Your task to perform on an android device: Search for amazon basics triple a on target, select the first entry, and add it to the cart. Image 0: 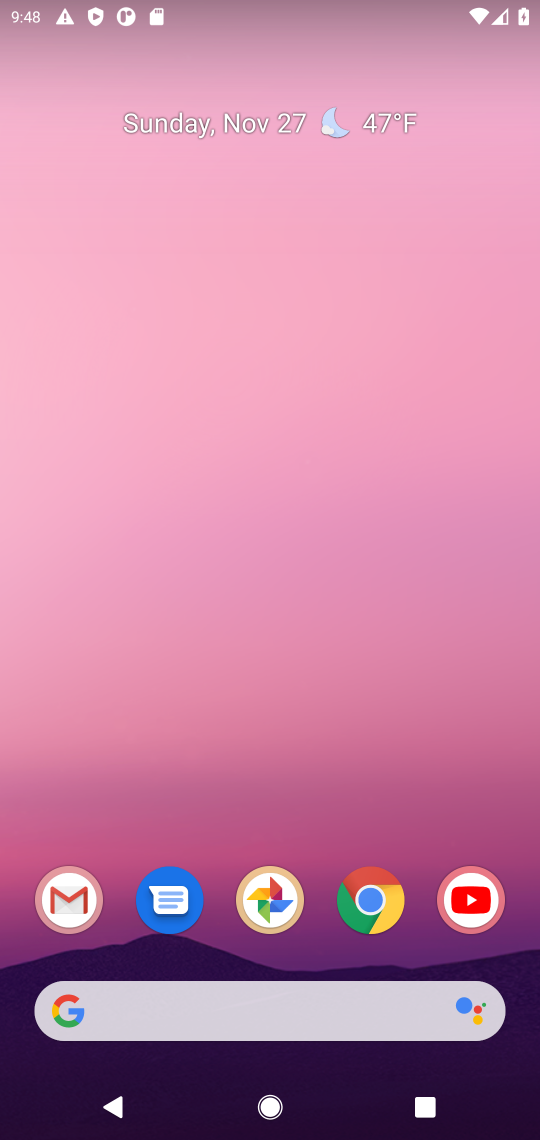
Step 0: click (370, 910)
Your task to perform on an android device: Search for amazon basics triple a on target, select the first entry, and add it to the cart. Image 1: 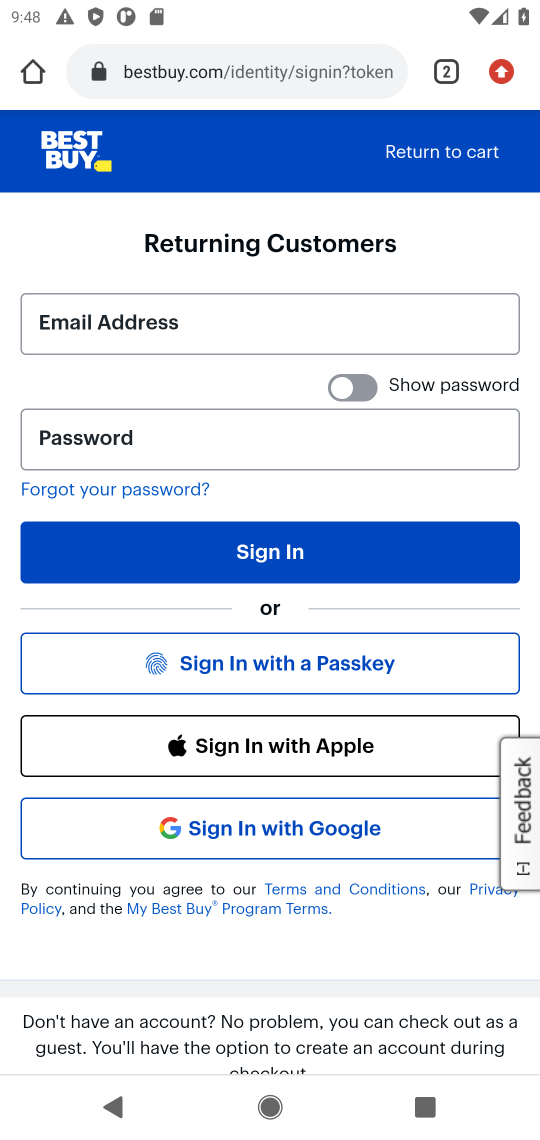
Step 1: click (175, 64)
Your task to perform on an android device: Search for amazon basics triple a on target, select the first entry, and add it to the cart. Image 2: 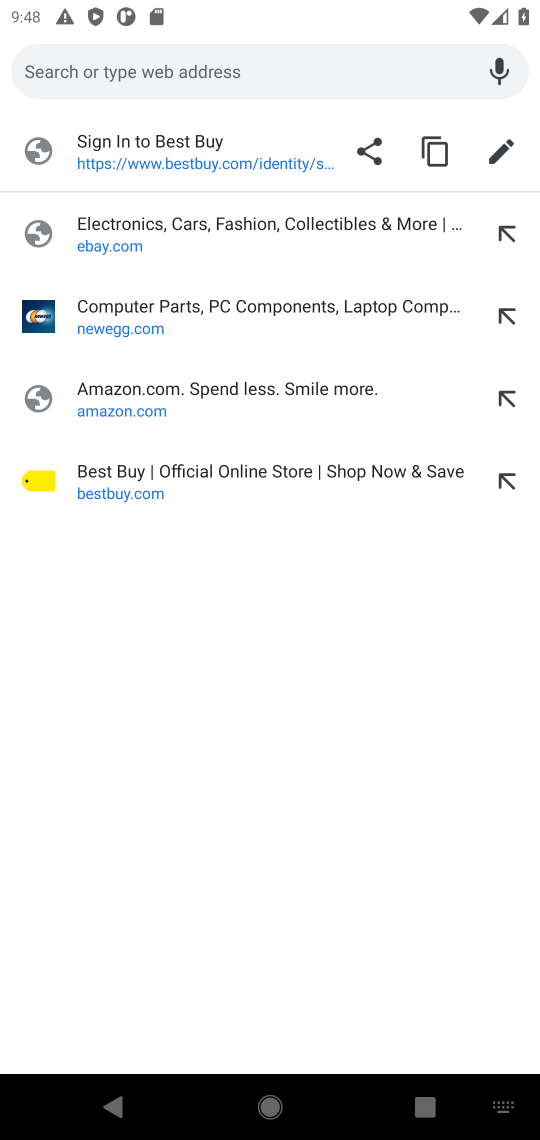
Step 2: type "target.com"
Your task to perform on an android device: Search for amazon basics triple a on target, select the first entry, and add it to the cart. Image 3: 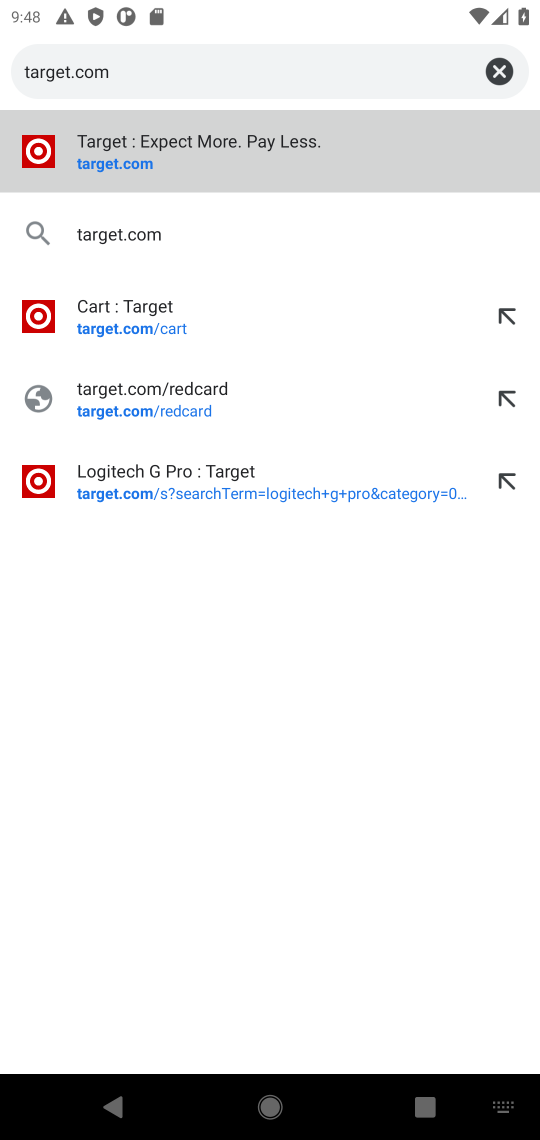
Step 3: click (117, 160)
Your task to perform on an android device: Search for amazon basics triple a on target, select the first entry, and add it to the cart. Image 4: 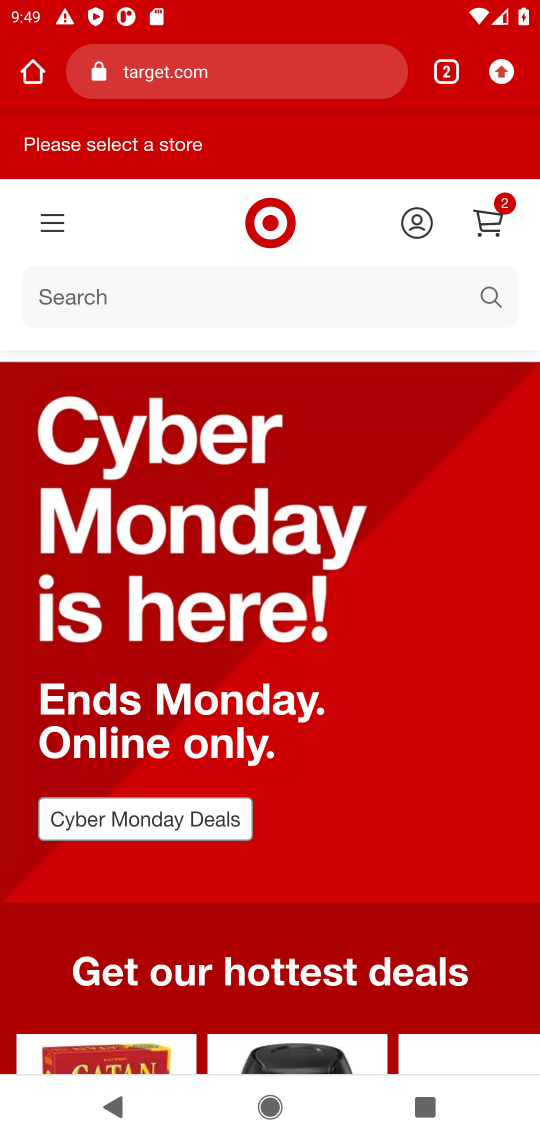
Step 4: click (493, 295)
Your task to perform on an android device: Search for amazon basics triple a on target, select the first entry, and add it to the cart. Image 5: 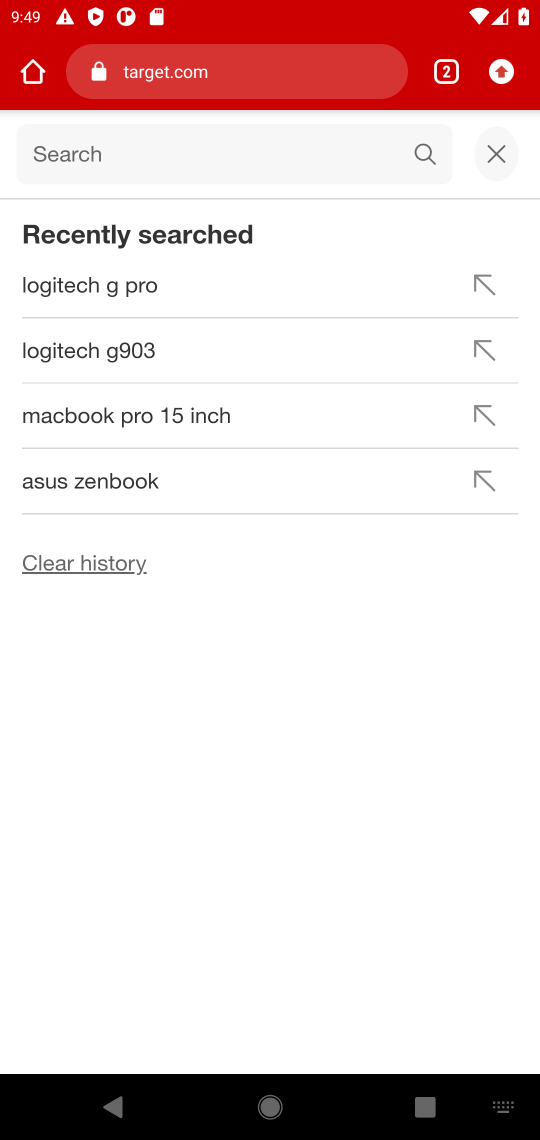
Step 5: type "amazon basics triple a"
Your task to perform on an android device: Search for amazon basics triple a on target, select the first entry, and add it to the cart. Image 6: 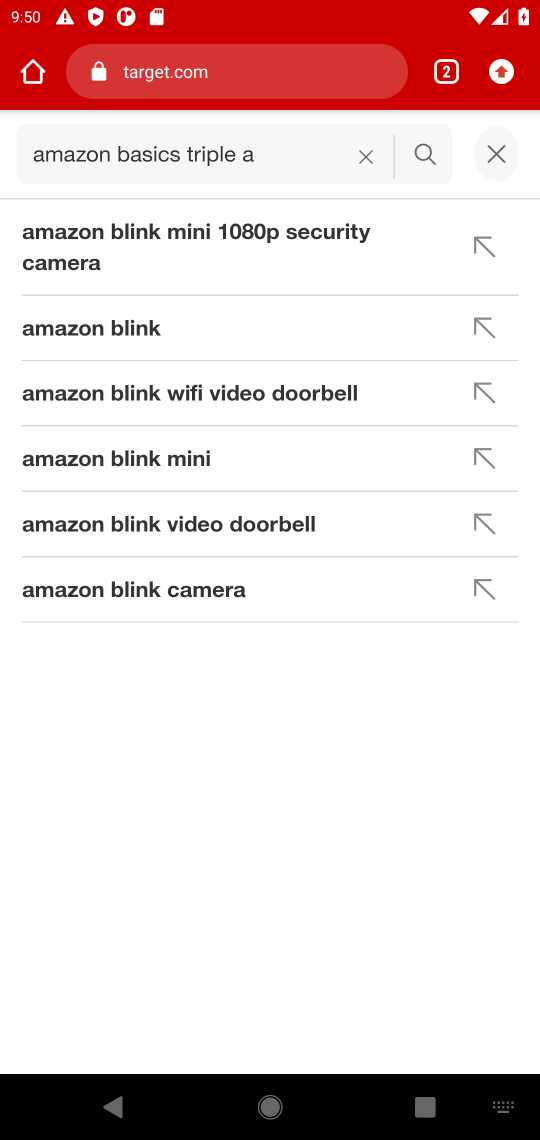
Step 6: click (438, 156)
Your task to perform on an android device: Search for amazon basics triple a on target, select the first entry, and add it to the cart. Image 7: 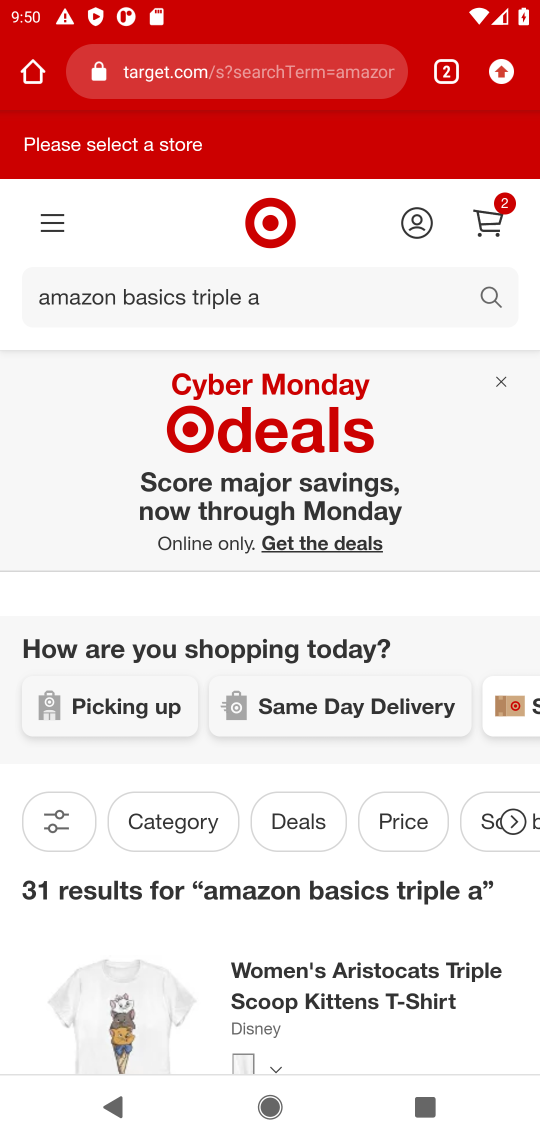
Step 7: drag from (221, 586) to (247, 307)
Your task to perform on an android device: Search for amazon basics triple a on target, select the first entry, and add it to the cart. Image 8: 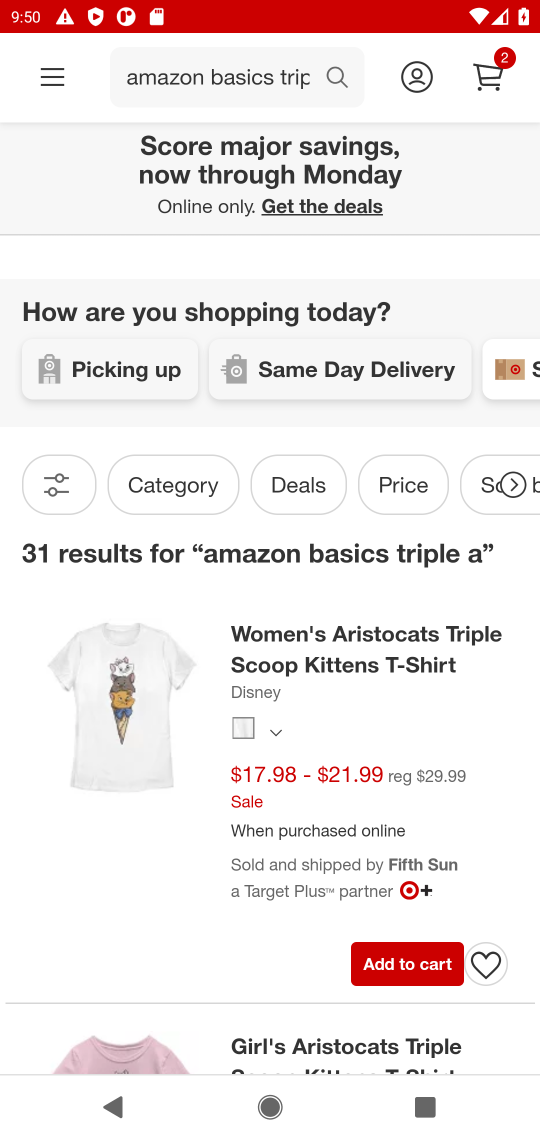
Step 8: drag from (161, 790) to (205, 469)
Your task to perform on an android device: Search for amazon basics triple a on target, select the first entry, and add it to the cart. Image 9: 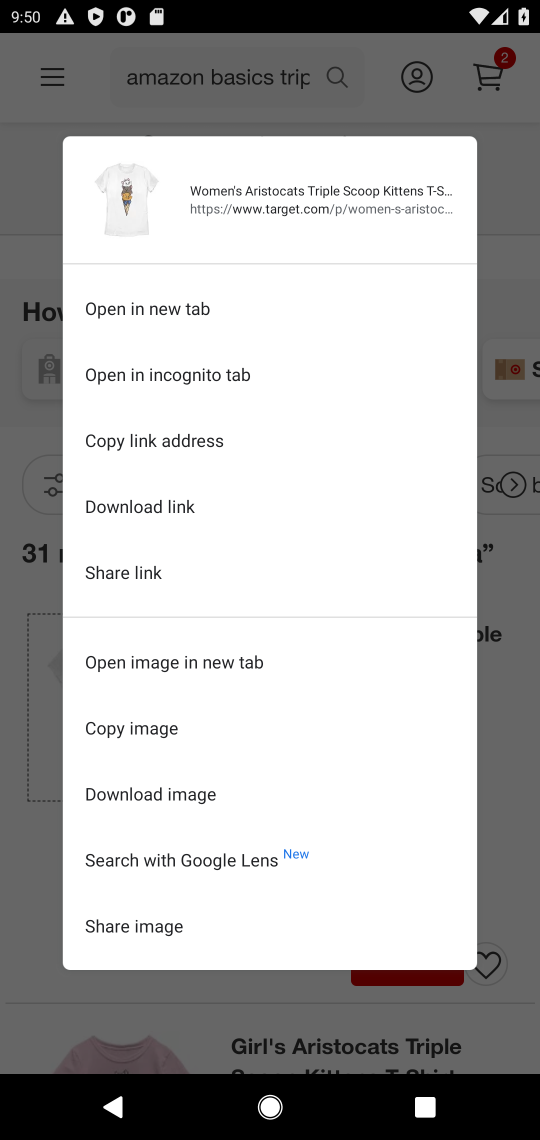
Step 9: click (492, 678)
Your task to perform on an android device: Search for amazon basics triple a on target, select the first entry, and add it to the cart. Image 10: 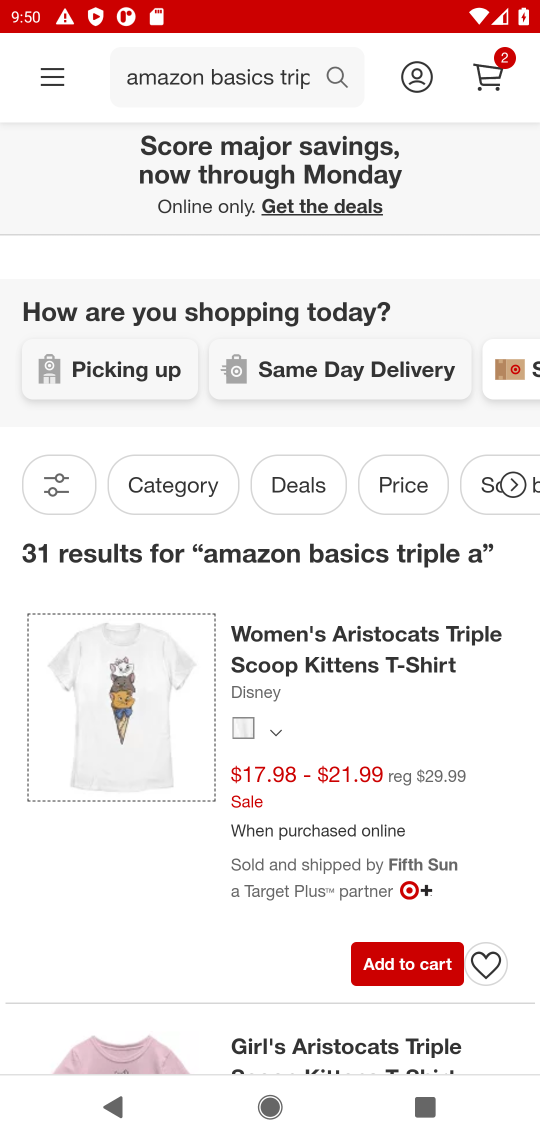
Step 10: task complete